Your task to perform on an android device: Open Google Maps and go to "Timeline" Image 0: 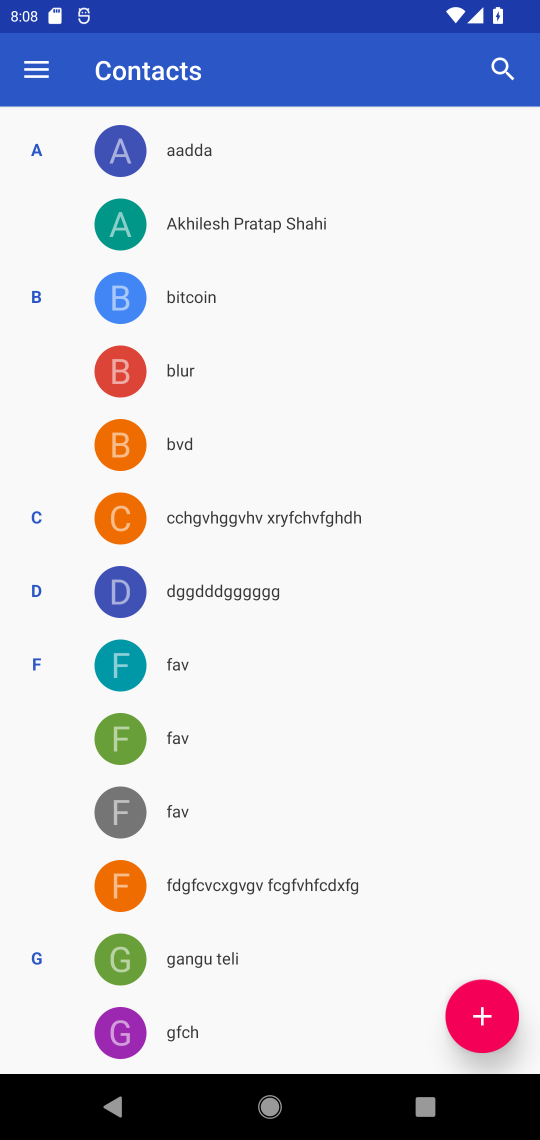
Step 0: press home button
Your task to perform on an android device: Open Google Maps and go to "Timeline" Image 1: 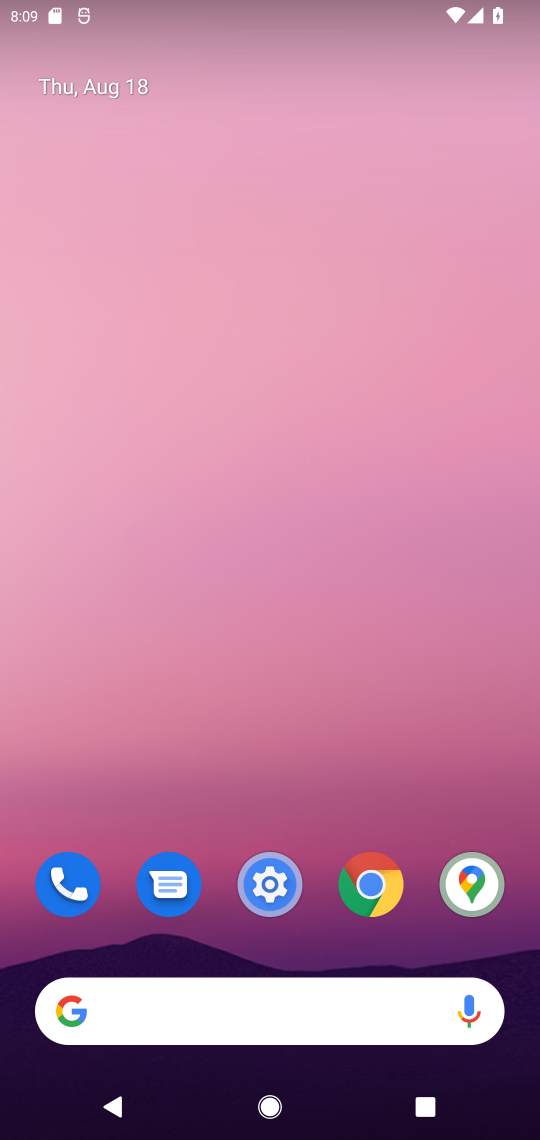
Step 1: click (467, 873)
Your task to perform on an android device: Open Google Maps and go to "Timeline" Image 2: 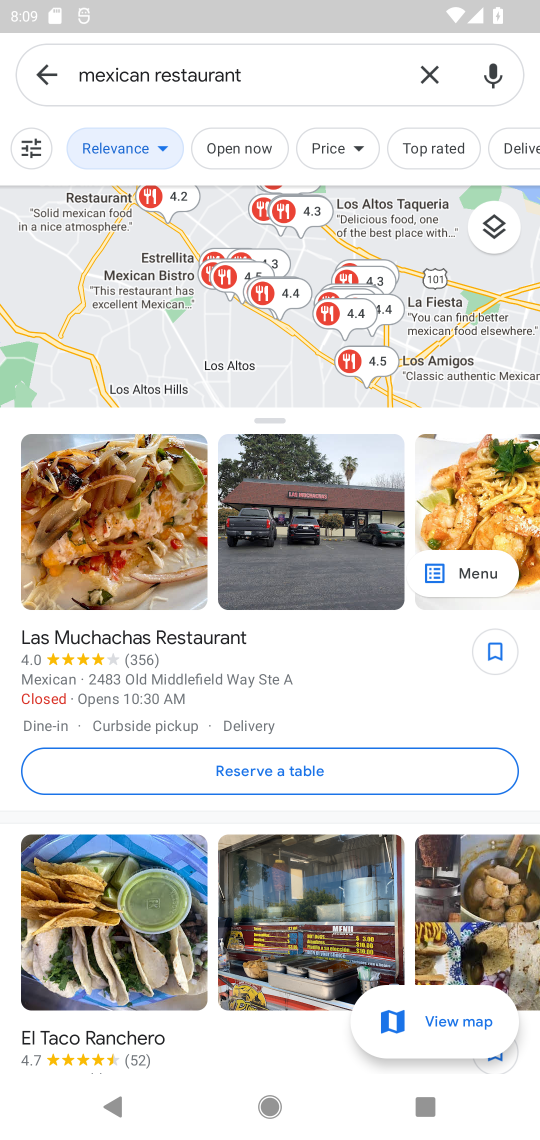
Step 2: task complete